Your task to perform on an android device: change keyboard looks Image 0: 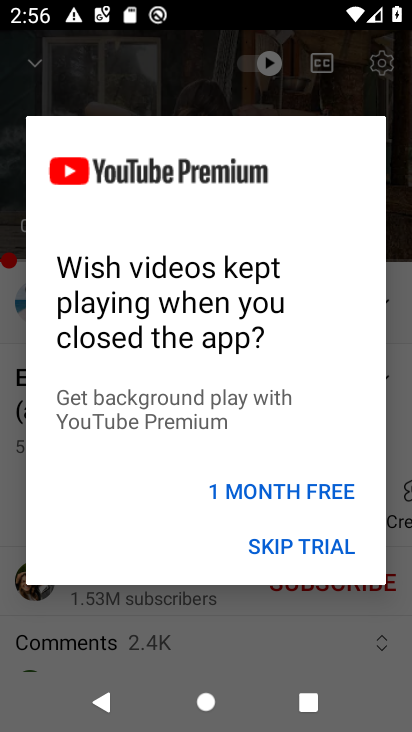
Step 0: press home button
Your task to perform on an android device: change keyboard looks Image 1: 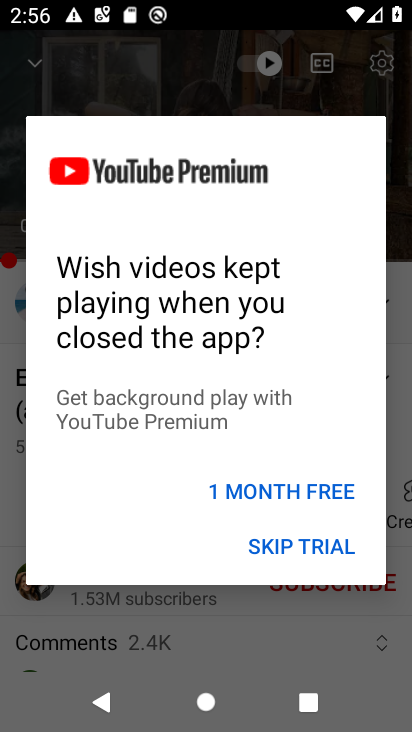
Step 1: press home button
Your task to perform on an android device: change keyboard looks Image 2: 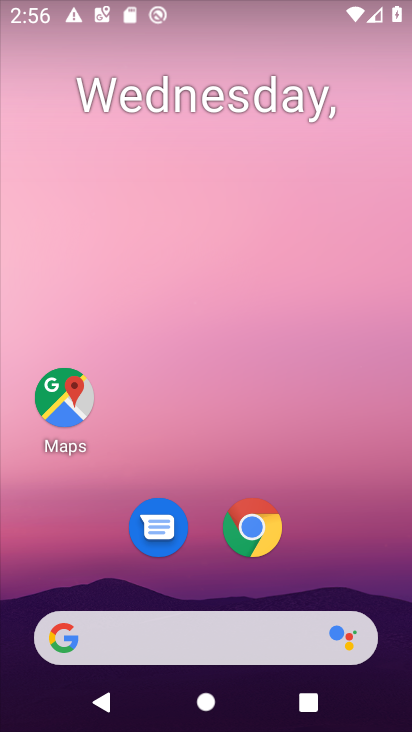
Step 2: drag from (316, 550) to (363, 75)
Your task to perform on an android device: change keyboard looks Image 3: 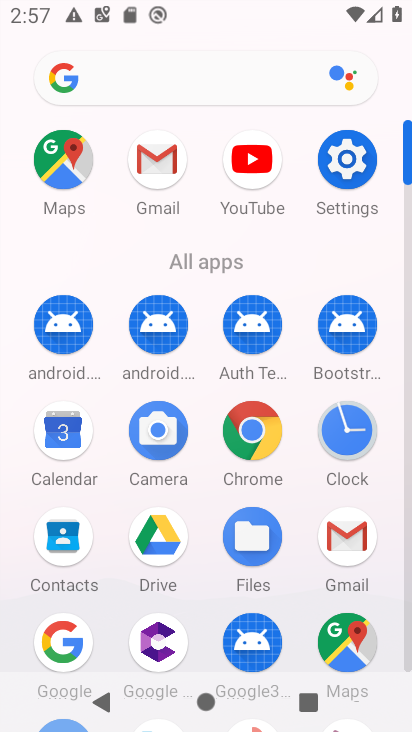
Step 3: click (340, 160)
Your task to perform on an android device: change keyboard looks Image 4: 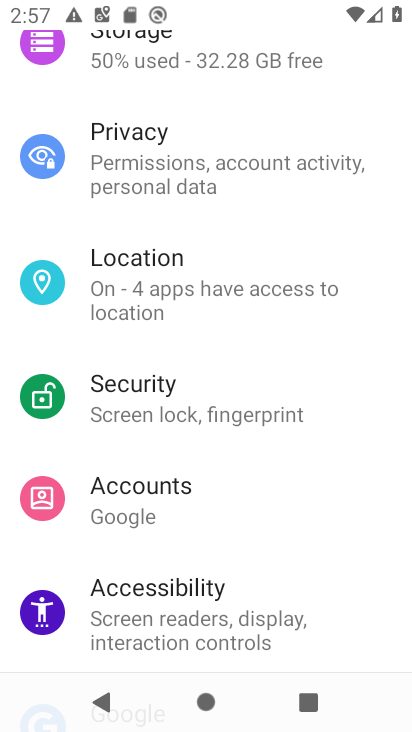
Step 4: drag from (283, 566) to (298, 110)
Your task to perform on an android device: change keyboard looks Image 5: 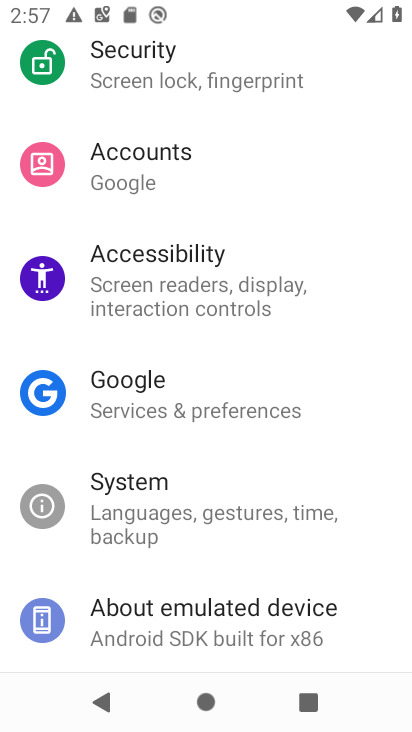
Step 5: click (100, 513)
Your task to perform on an android device: change keyboard looks Image 6: 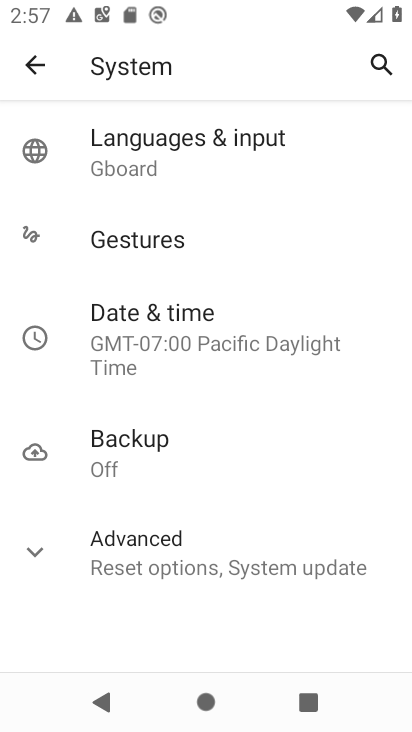
Step 6: click (205, 152)
Your task to perform on an android device: change keyboard looks Image 7: 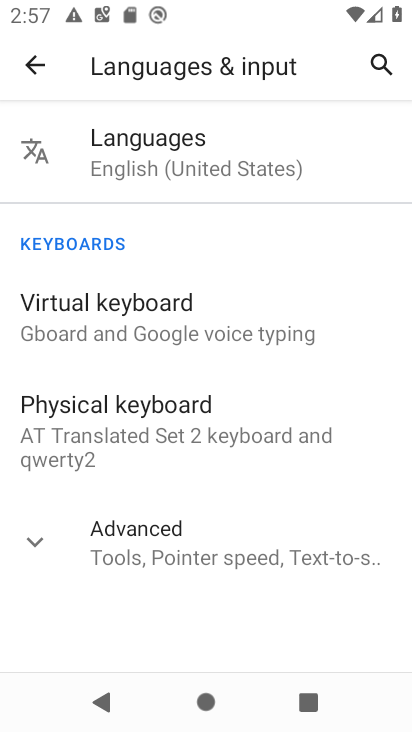
Step 7: click (103, 301)
Your task to perform on an android device: change keyboard looks Image 8: 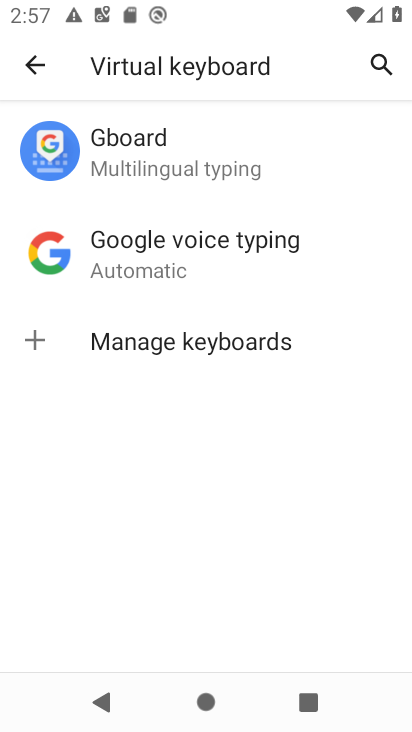
Step 8: click (145, 165)
Your task to perform on an android device: change keyboard looks Image 9: 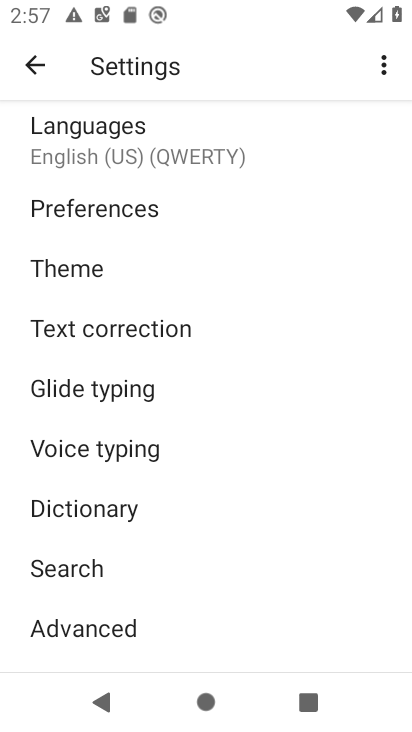
Step 9: click (93, 259)
Your task to perform on an android device: change keyboard looks Image 10: 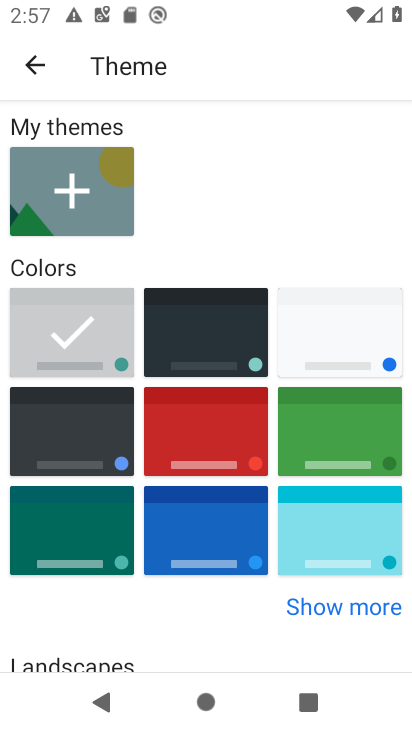
Step 10: click (344, 314)
Your task to perform on an android device: change keyboard looks Image 11: 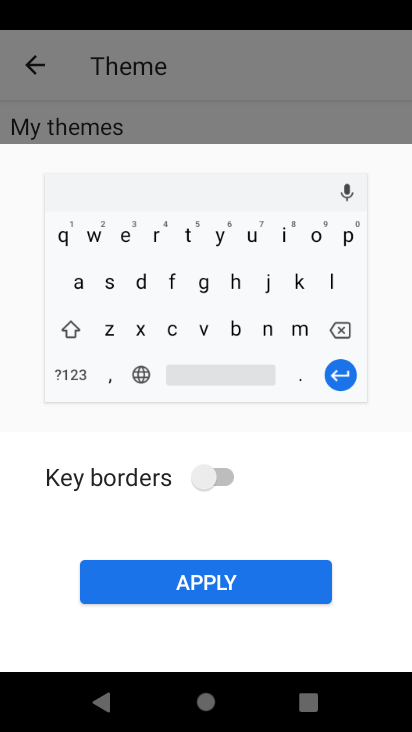
Step 11: click (281, 571)
Your task to perform on an android device: change keyboard looks Image 12: 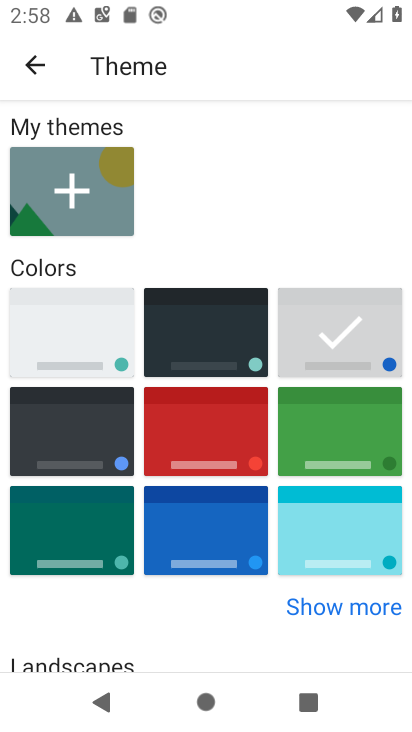
Step 12: task complete